Your task to perform on an android device: Open Google Image 0: 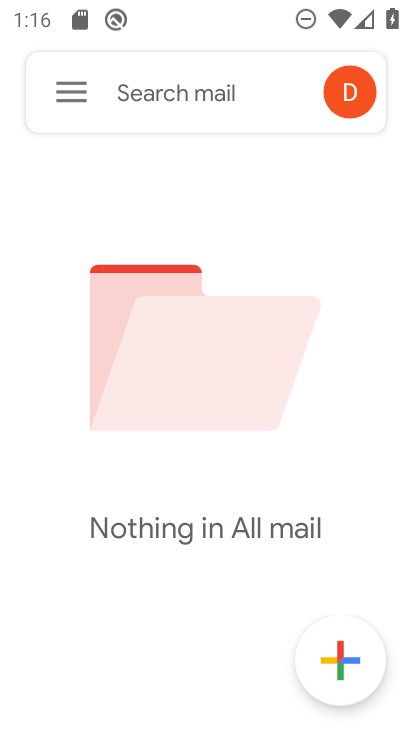
Step 0: press home button
Your task to perform on an android device: Open Google Image 1: 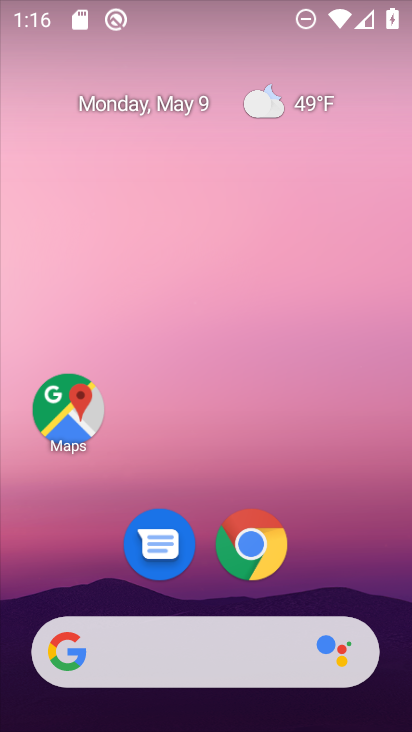
Step 1: drag from (362, 557) to (408, 0)
Your task to perform on an android device: Open Google Image 2: 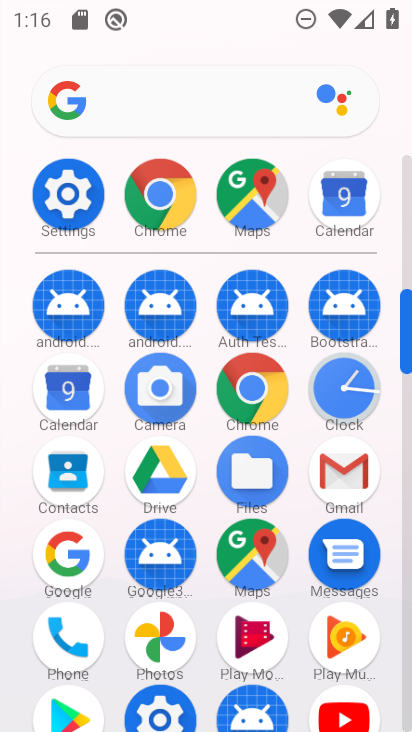
Step 2: click (70, 554)
Your task to perform on an android device: Open Google Image 3: 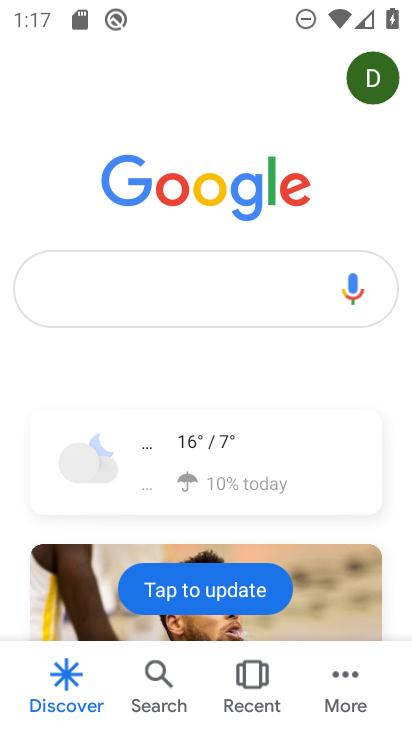
Step 3: task complete